Your task to perform on an android device: open app "Firefox Browser" (install if not already installed), go to login, and select forgot password Image 0: 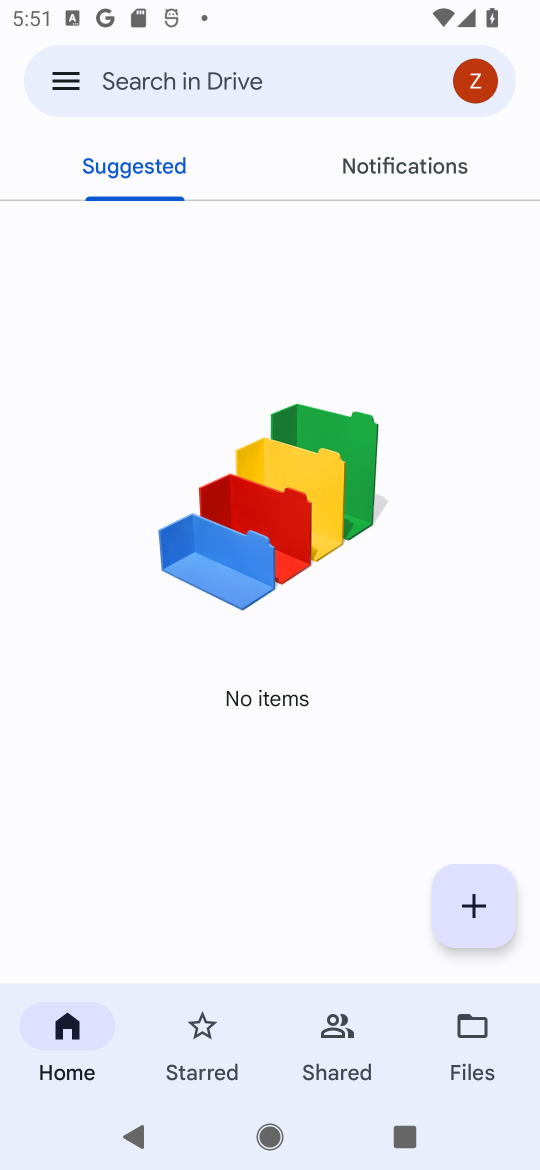
Step 0: press home button
Your task to perform on an android device: open app "Firefox Browser" (install if not already installed), go to login, and select forgot password Image 1: 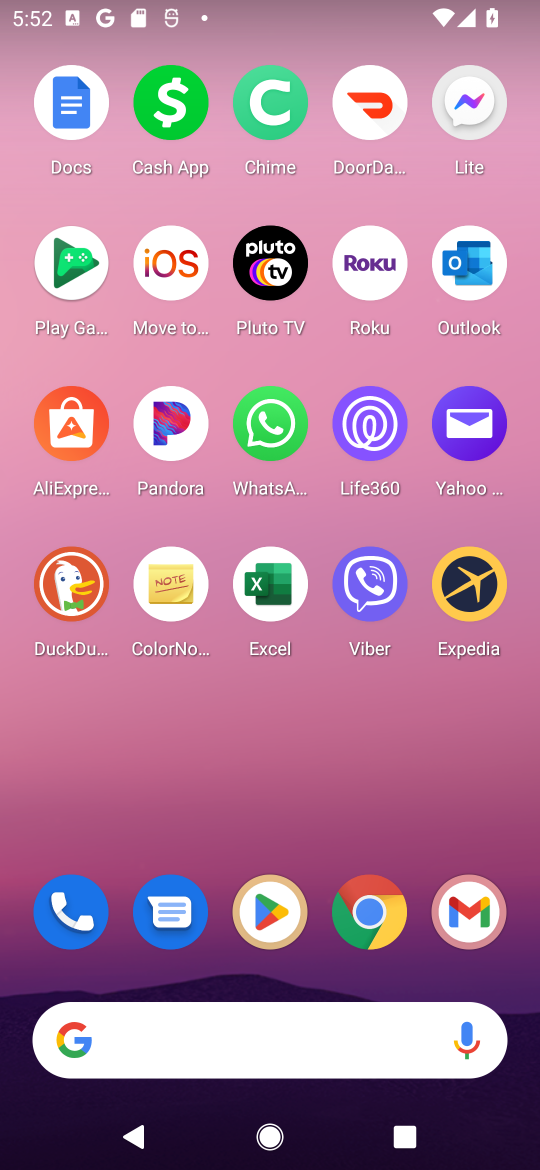
Step 1: click (270, 914)
Your task to perform on an android device: open app "Firefox Browser" (install if not already installed), go to login, and select forgot password Image 2: 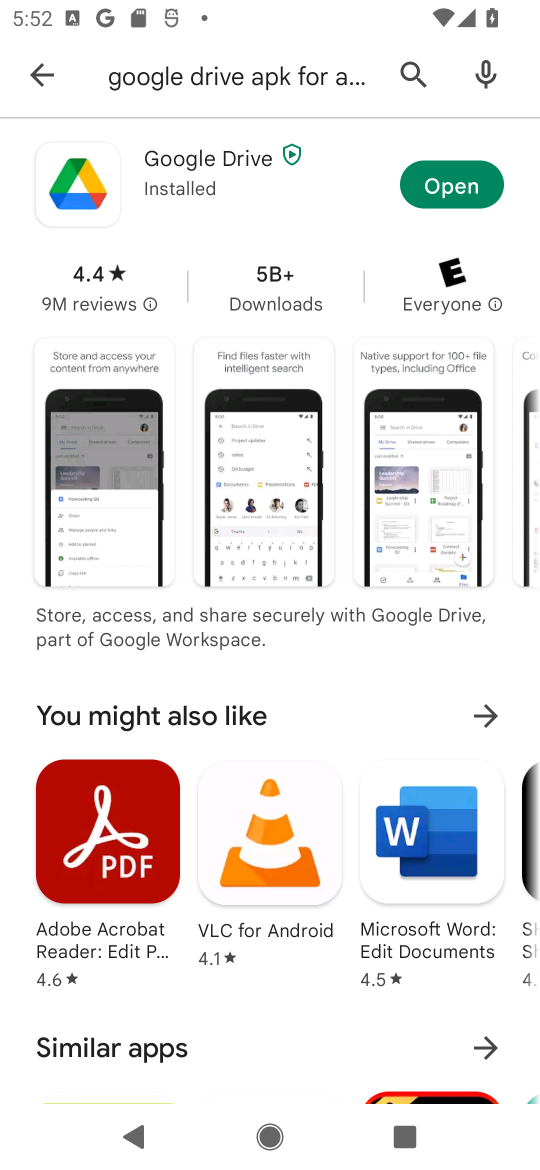
Step 2: click (44, 77)
Your task to perform on an android device: open app "Firefox Browser" (install if not already installed), go to login, and select forgot password Image 3: 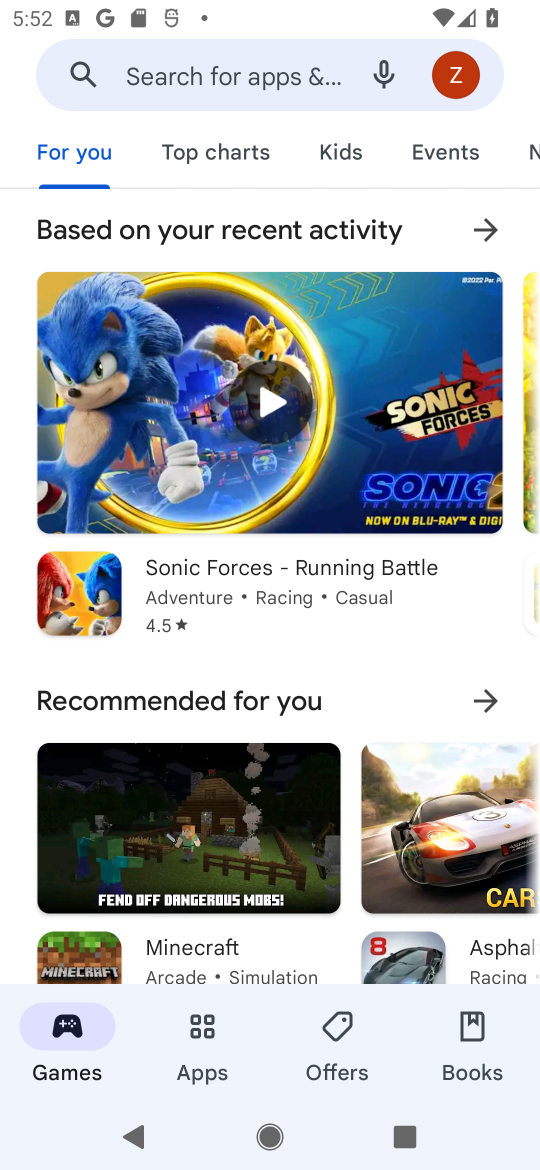
Step 3: click (235, 89)
Your task to perform on an android device: open app "Firefox Browser" (install if not already installed), go to login, and select forgot password Image 4: 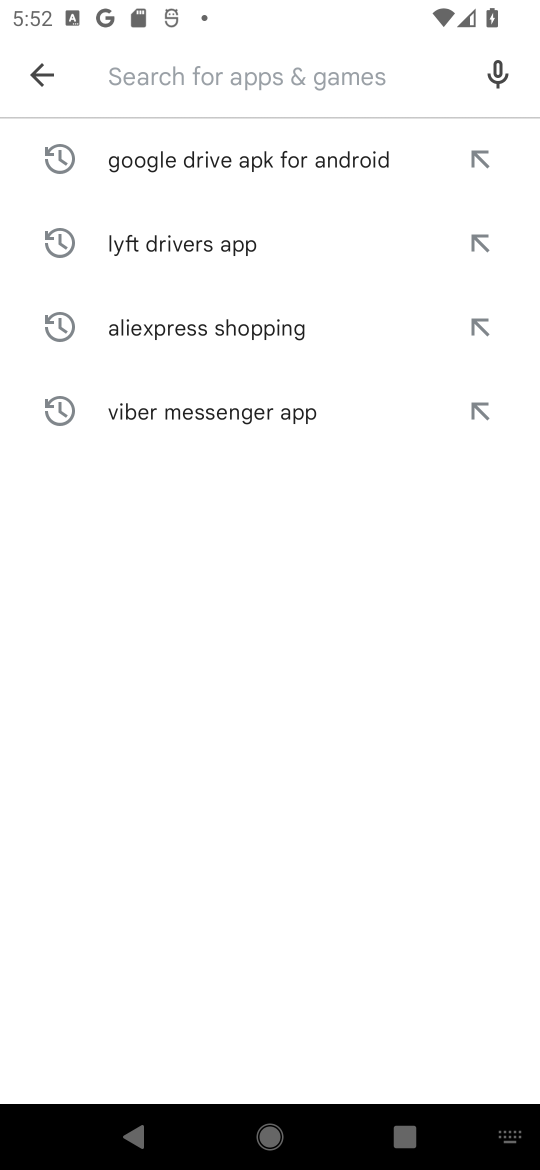
Step 4: type "Firefox Browser "
Your task to perform on an android device: open app "Firefox Browser" (install if not already installed), go to login, and select forgot password Image 5: 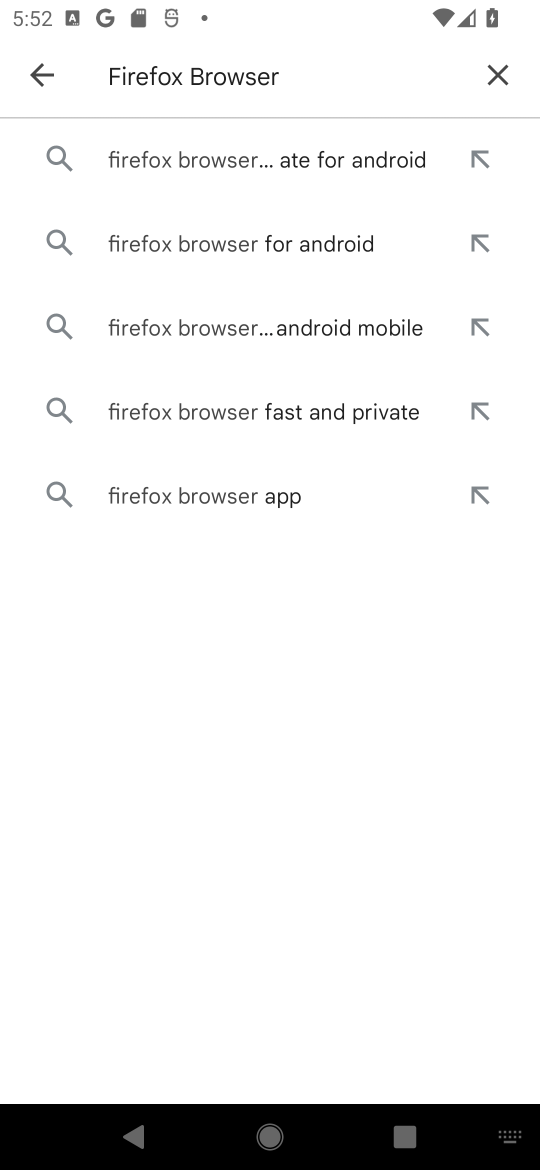
Step 5: click (246, 175)
Your task to perform on an android device: open app "Firefox Browser" (install if not already installed), go to login, and select forgot password Image 6: 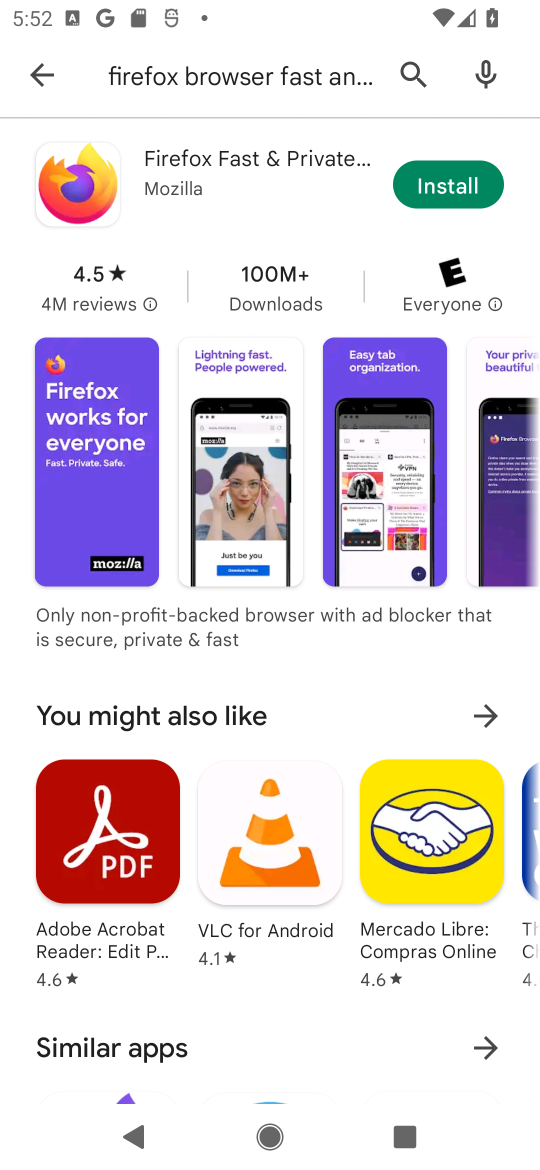
Step 6: click (442, 176)
Your task to perform on an android device: open app "Firefox Browser" (install if not already installed), go to login, and select forgot password Image 7: 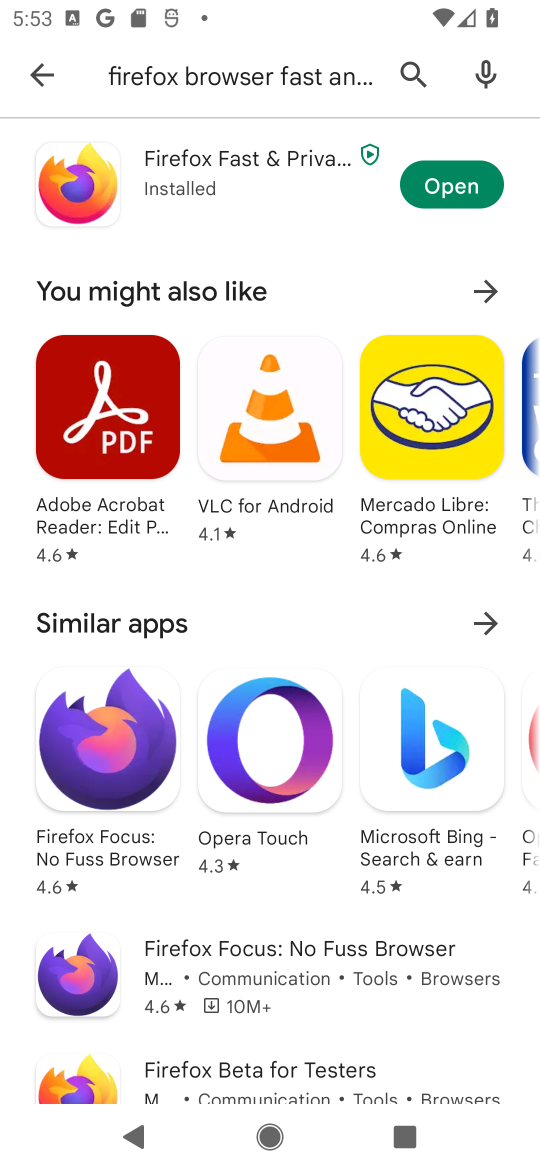
Step 7: task complete